Your task to perform on an android device: change the clock style Image 0: 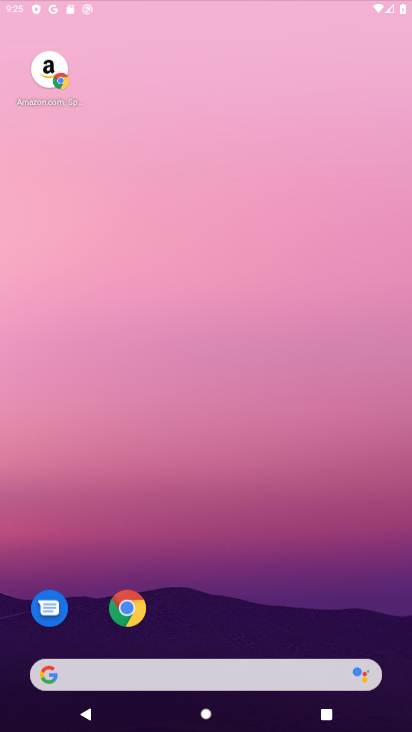
Step 0: drag from (210, 655) to (193, 263)
Your task to perform on an android device: change the clock style Image 1: 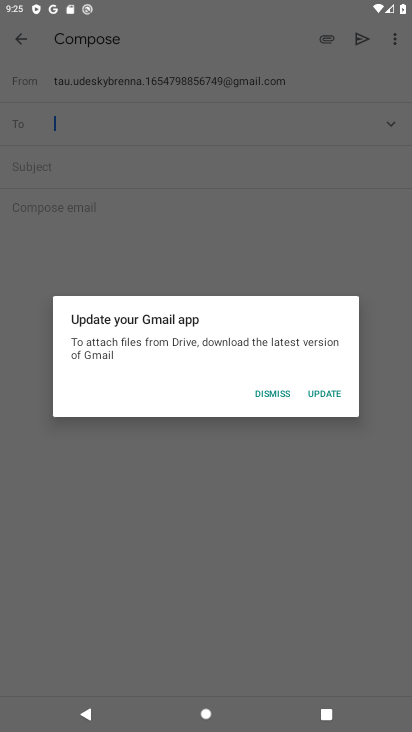
Step 1: press home button
Your task to perform on an android device: change the clock style Image 2: 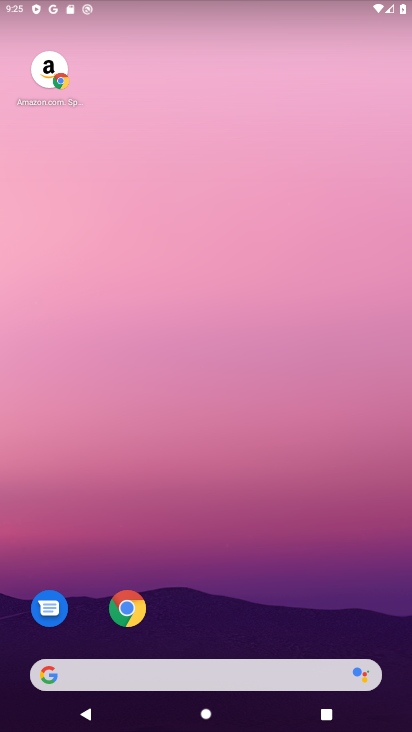
Step 2: drag from (206, 626) to (142, 113)
Your task to perform on an android device: change the clock style Image 3: 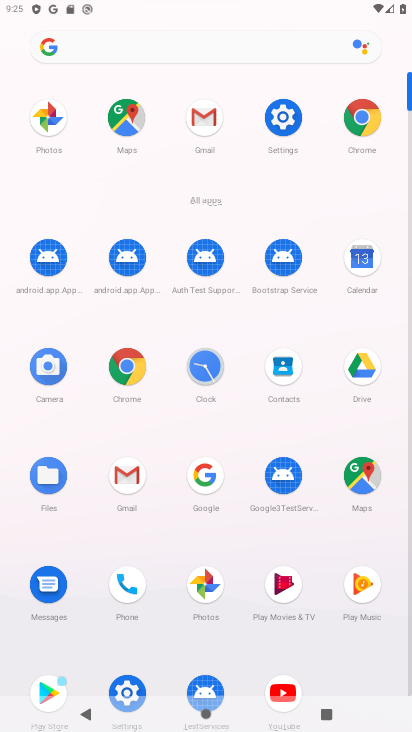
Step 3: click (177, 360)
Your task to perform on an android device: change the clock style Image 4: 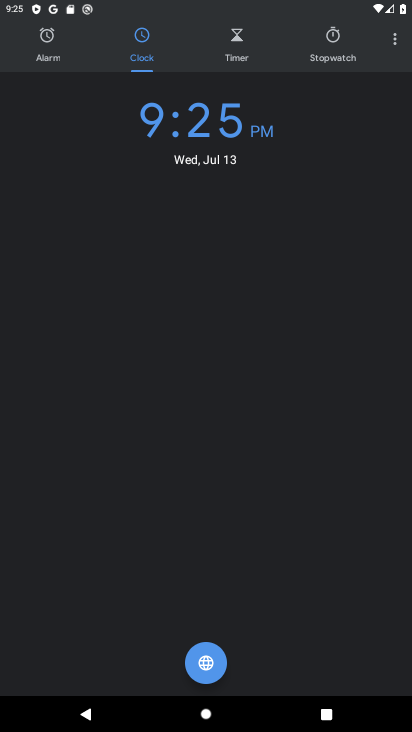
Step 4: click (400, 38)
Your task to perform on an android device: change the clock style Image 5: 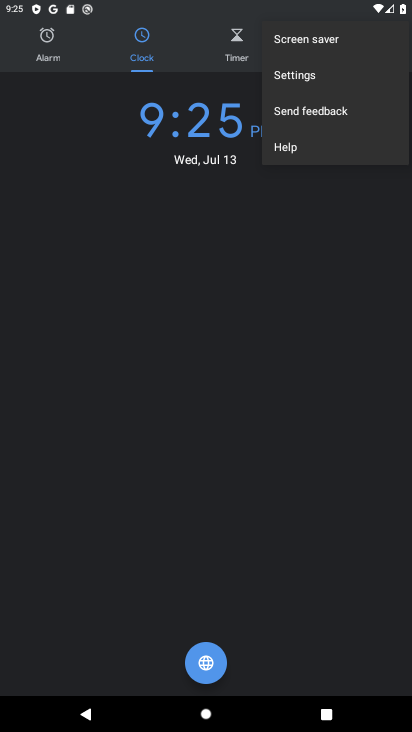
Step 5: click (305, 85)
Your task to perform on an android device: change the clock style Image 6: 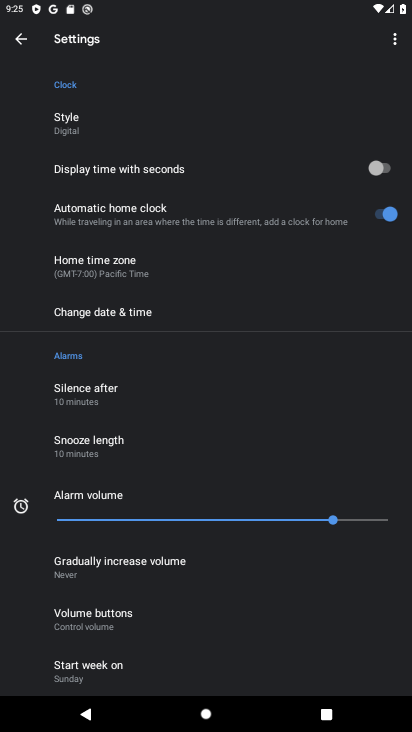
Step 6: task complete